Your task to perform on an android device: check battery use Image 0: 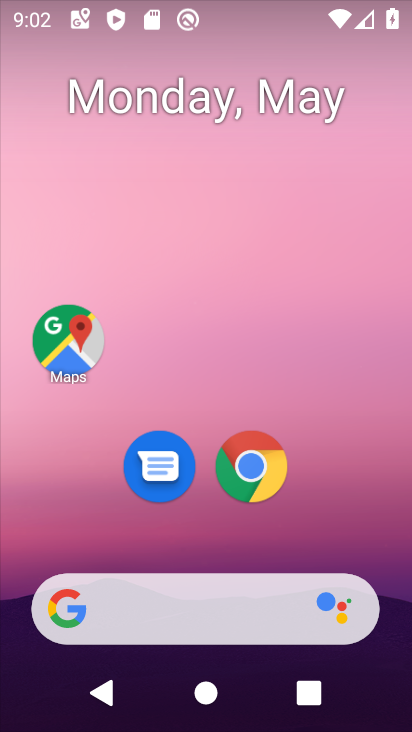
Step 0: press home button
Your task to perform on an android device: check battery use Image 1: 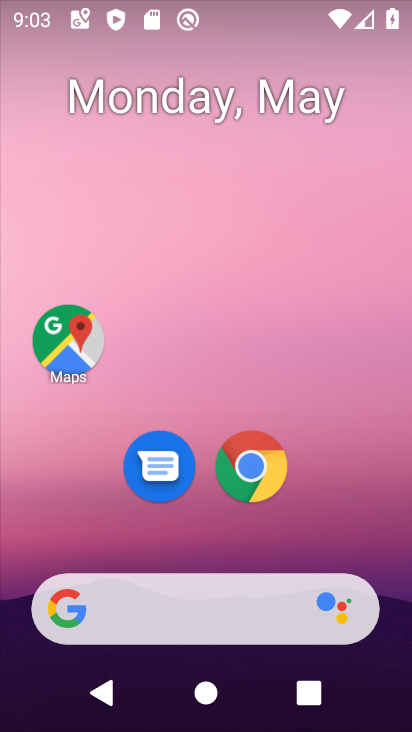
Step 1: drag from (220, 652) to (257, 80)
Your task to perform on an android device: check battery use Image 2: 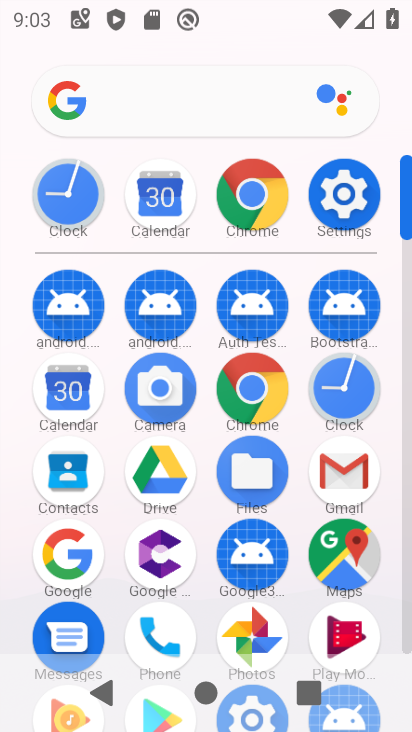
Step 2: click (346, 213)
Your task to perform on an android device: check battery use Image 3: 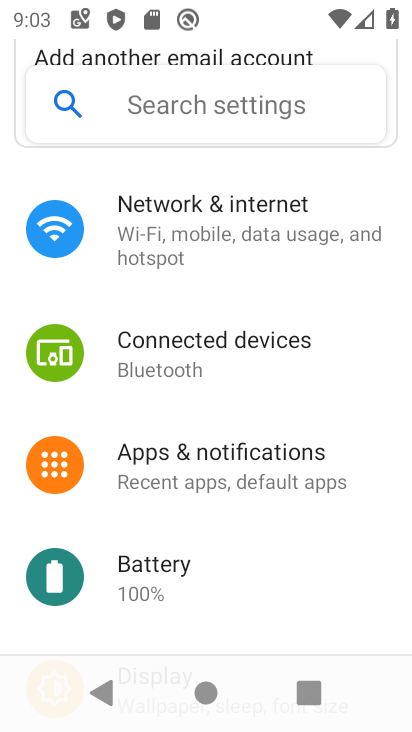
Step 3: click (150, 577)
Your task to perform on an android device: check battery use Image 4: 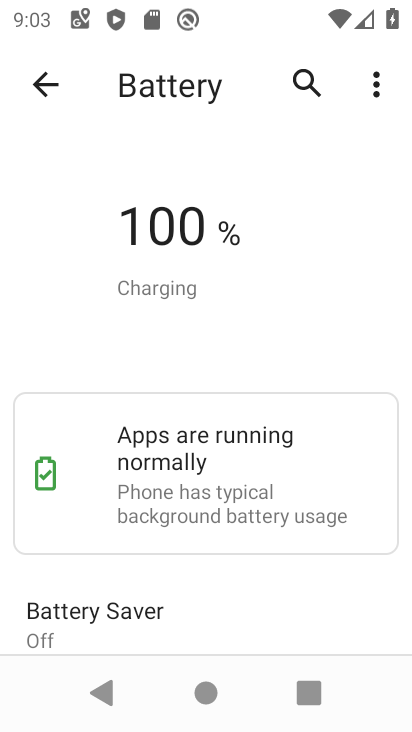
Step 4: task complete